Your task to perform on an android device: turn off data saver in the chrome app Image 0: 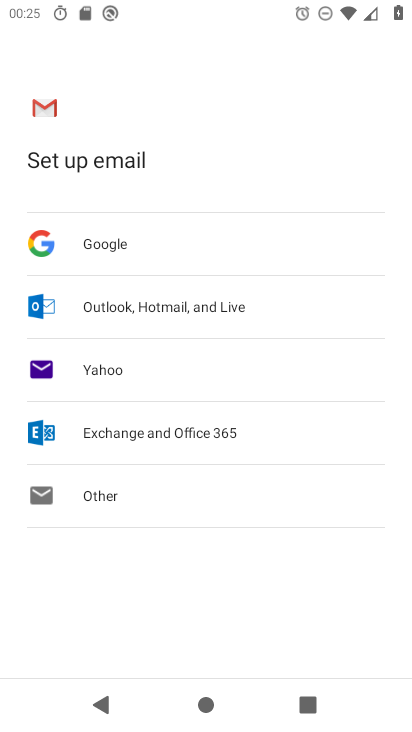
Step 0: press home button
Your task to perform on an android device: turn off data saver in the chrome app Image 1: 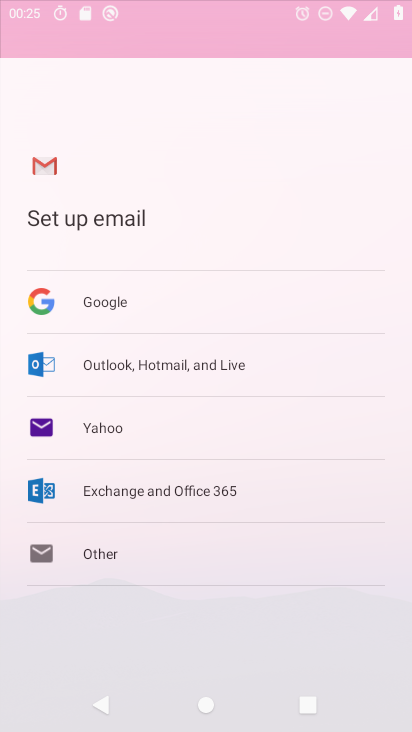
Step 1: drag from (201, 579) to (246, 86)
Your task to perform on an android device: turn off data saver in the chrome app Image 2: 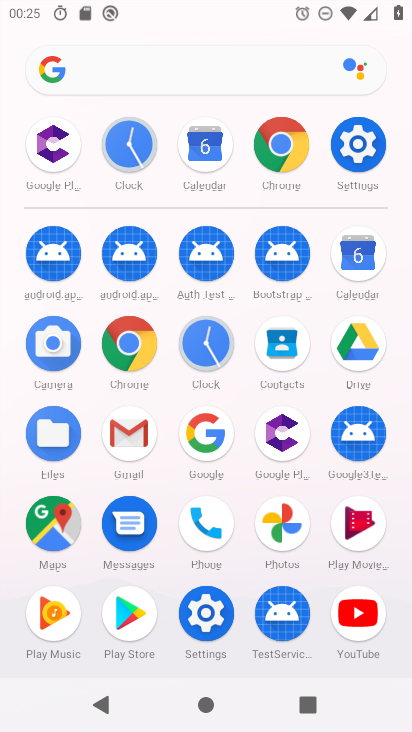
Step 2: click (277, 148)
Your task to perform on an android device: turn off data saver in the chrome app Image 3: 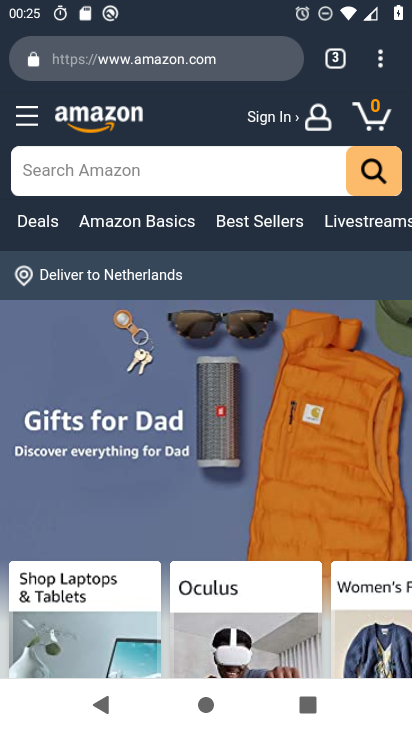
Step 3: drag from (225, 286) to (294, 613)
Your task to perform on an android device: turn off data saver in the chrome app Image 4: 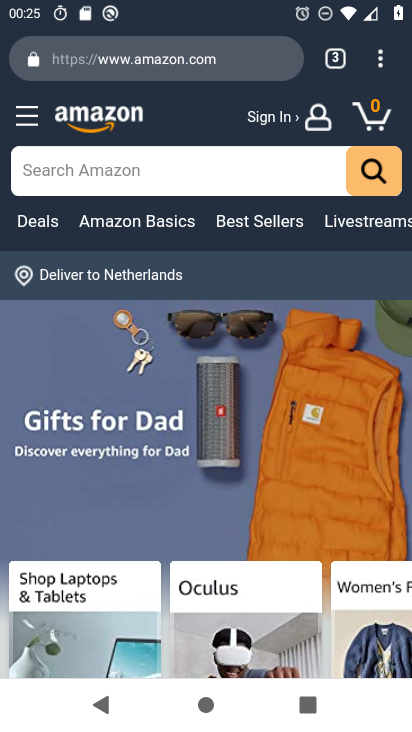
Step 4: drag from (383, 64) to (204, 581)
Your task to perform on an android device: turn off data saver in the chrome app Image 5: 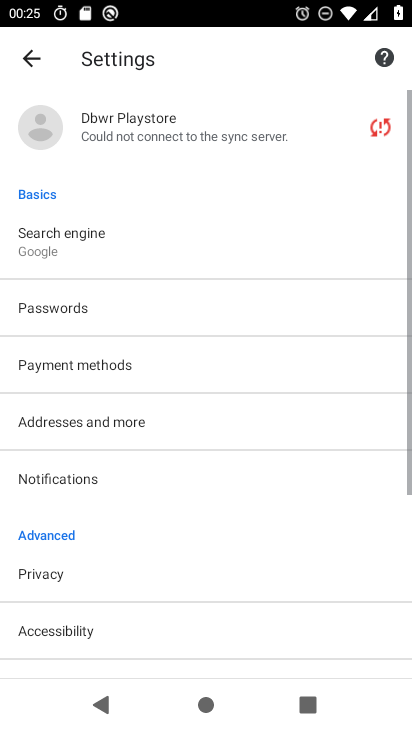
Step 5: drag from (194, 543) to (199, 238)
Your task to perform on an android device: turn off data saver in the chrome app Image 6: 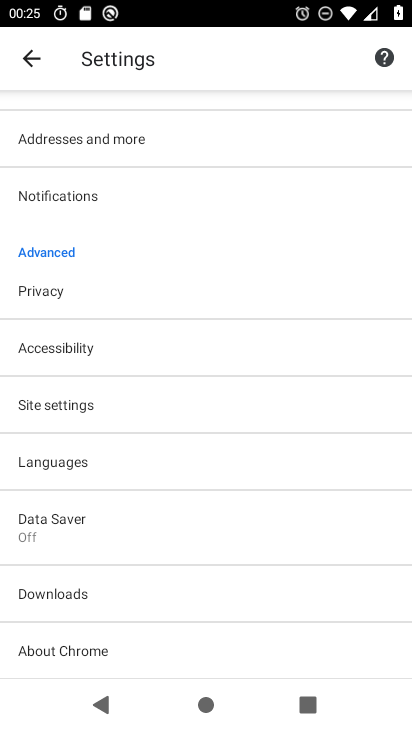
Step 6: click (241, 389)
Your task to perform on an android device: turn off data saver in the chrome app Image 7: 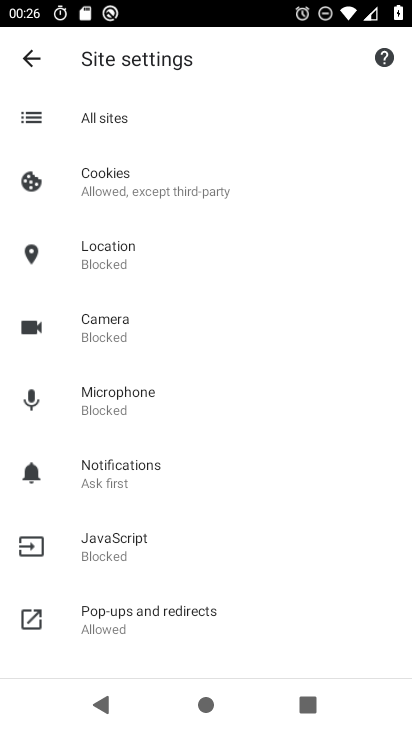
Step 7: click (224, 154)
Your task to perform on an android device: turn off data saver in the chrome app Image 8: 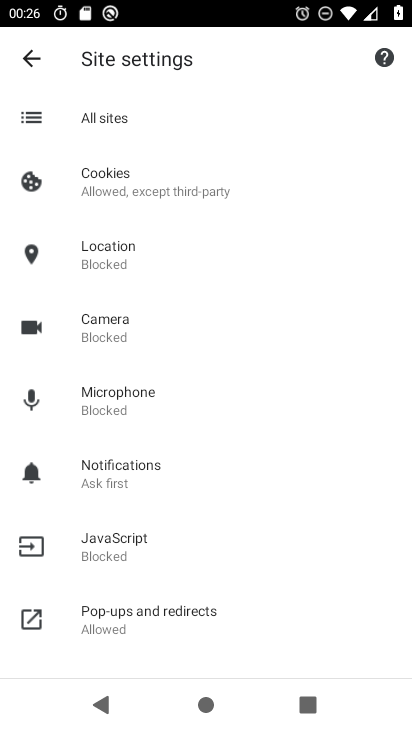
Step 8: click (255, 51)
Your task to perform on an android device: turn off data saver in the chrome app Image 9: 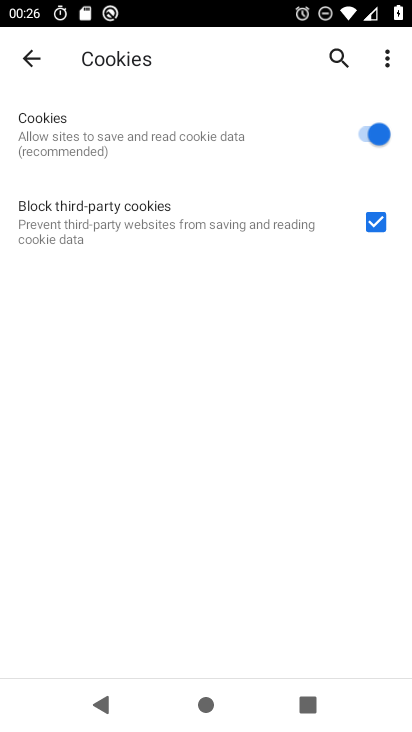
Step 9: click (28, 47)
Your task to perform on an android device: turn off data saver in the chrome app Image 10: 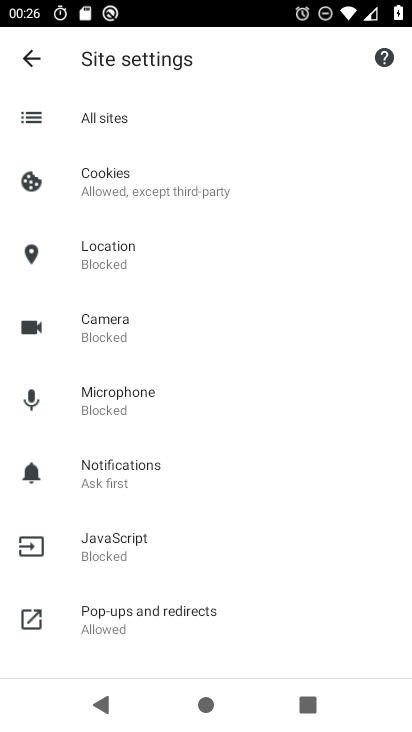
Step 10: drag from (167, 503) to (220, 121)
Your task to perform on an android device: turn off data saver in the chrome app Image 11: 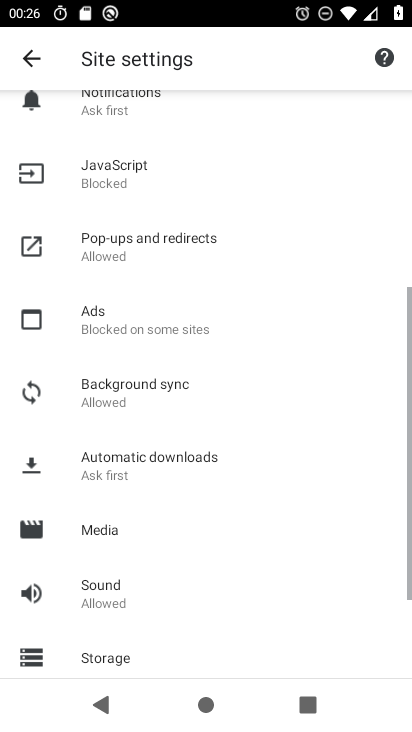
Step 11: click (26, 64)
Your task to perform on an android device: turn off data saver in the chrome app Image 12: 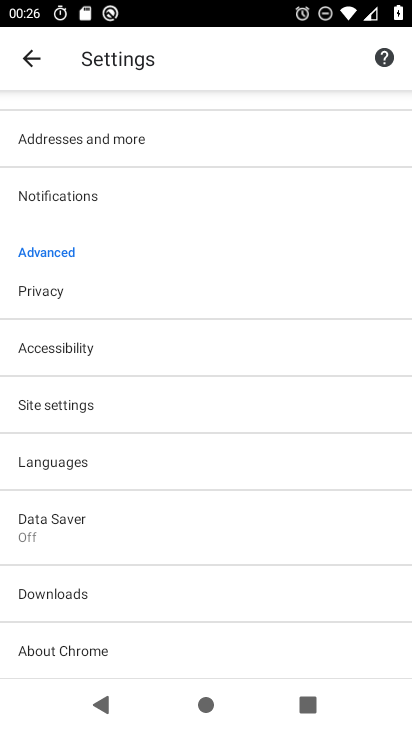
Step 12: click (82, 537)
Your task to perform on an android device: turn off data saver in the chrome app Image 13: 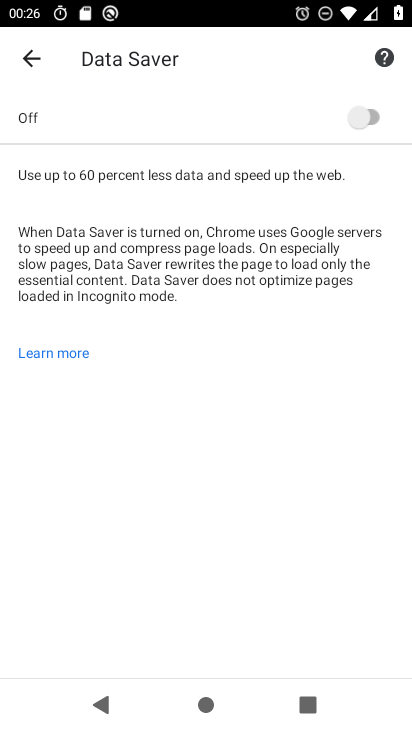
Step 13: task complete